Your task to perform on an android device: set the timer Image 0: 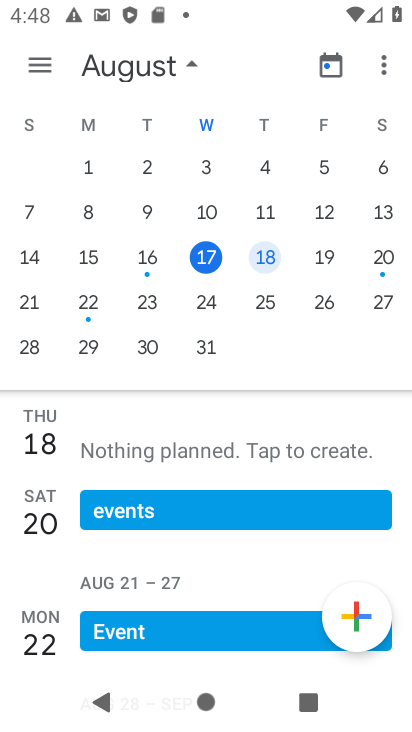
Step 0: press home button
Your task to perform on an android device: set the timer Image 1: 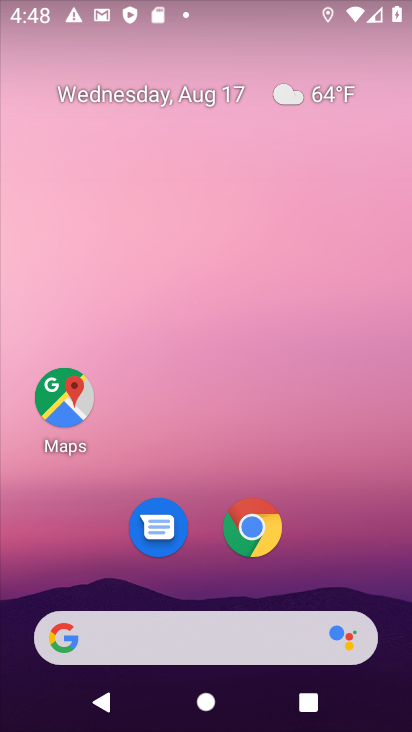
Step 1: drag from (202, 610) to (202, 305)
Your task to perform on an android device: set the timer Image 2: 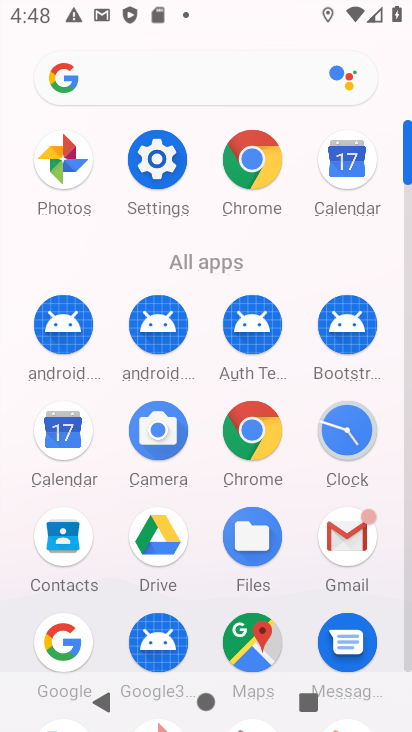
Step 2: click (353, 424)
Your task to perform on an android device: set the timer Image 3: 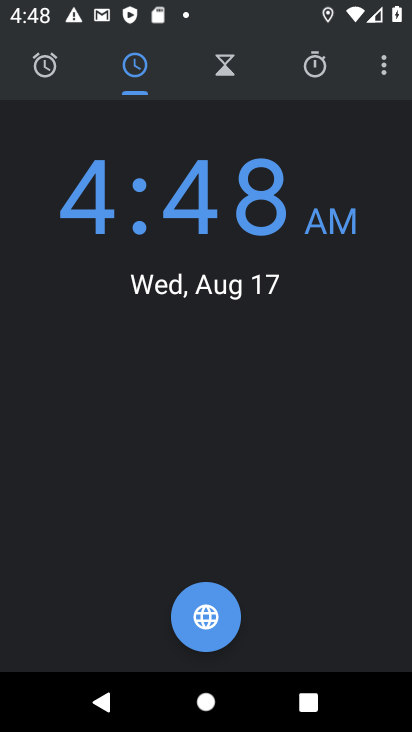
Step 3: click (228, 79)
Your task to perform on an android device: set the timer Image 4: 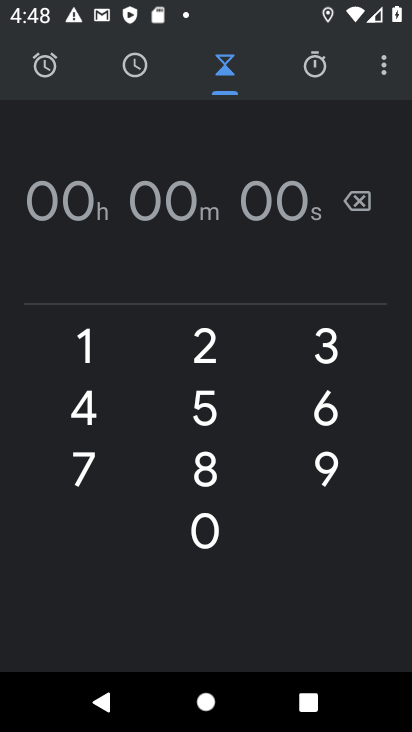
Step 4: click (203, 527)
Your task to perform on an android device: set the timer Image 5: 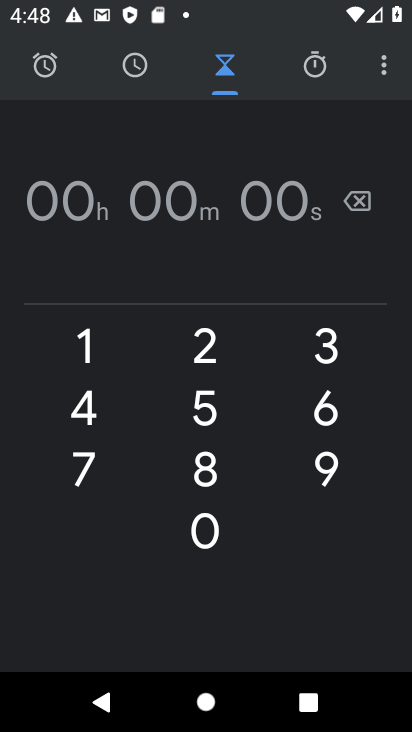
Step 5: click (201, 402)
Your task to perform on an android device: set the timer Image 6: 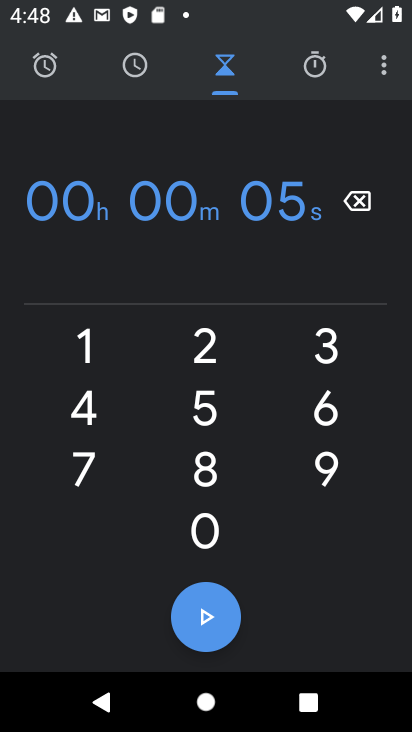
Step 6: click (206, 526)
Your task to perform on an android device: set the timer Image 7: 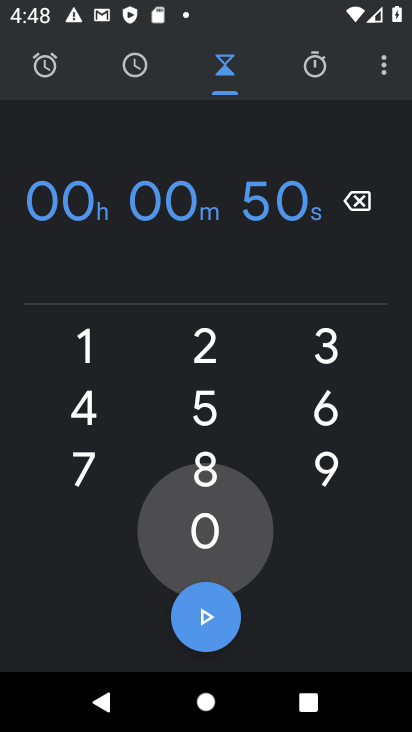
Step 7: click (206, 526)
Your task to perform on an android device: set the timer Image 8: 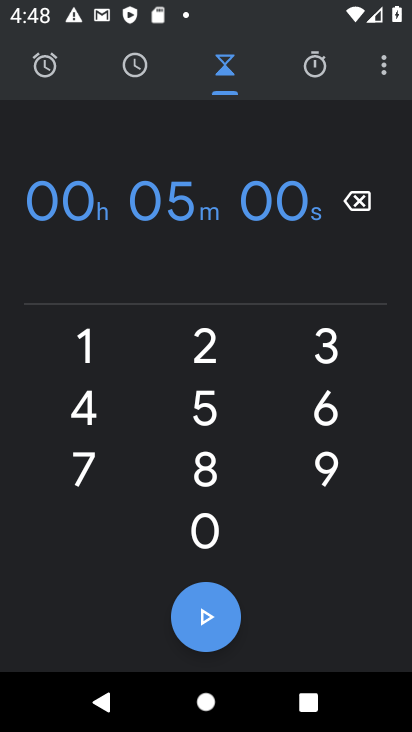
Step 8: click (195, 624)
Your task to perform on an android device: set the timer Image 9: 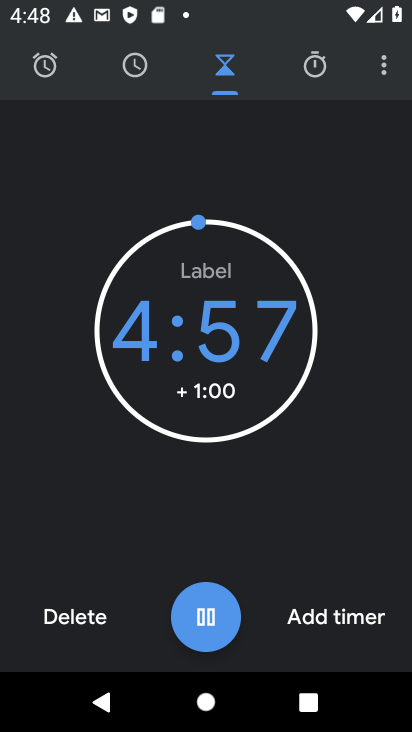
Step 9: task complete